Your task to perform on an android device: Check the news Image 0: 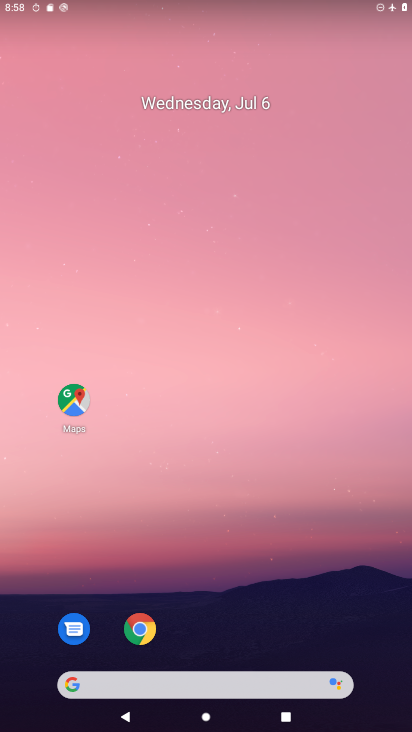
Step 0: drag from (255, 728) to (215, 75)
Your task to perform on an android device: Check the news Image 1: 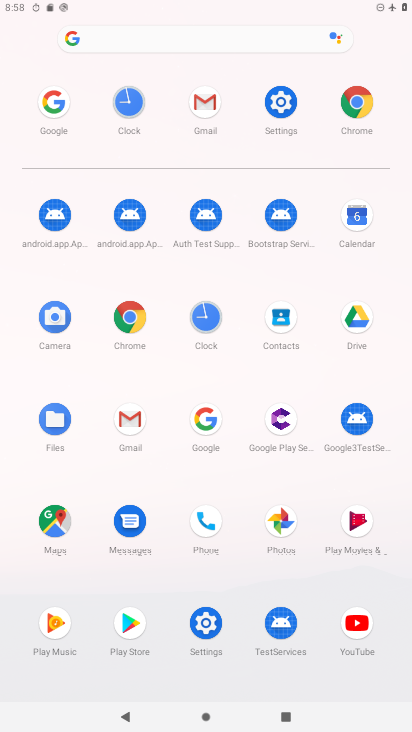
Step 1: click (200, 420)
Your task to perform on an android device: Check the news Image 2: 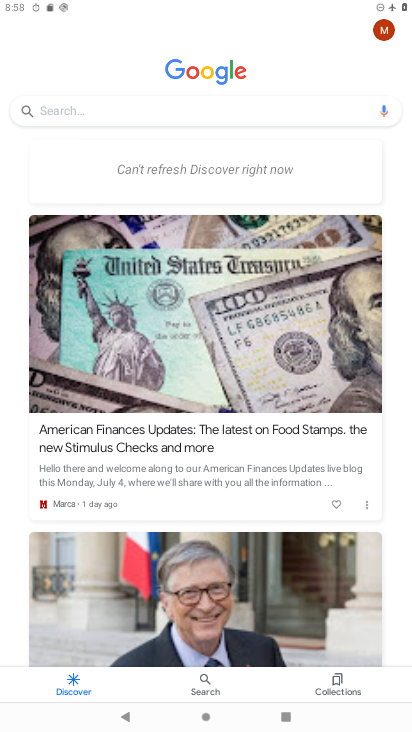
Step 2: task complete